Your task to perform on an android device: open chrome and create a bookmark for the current page Image 0: 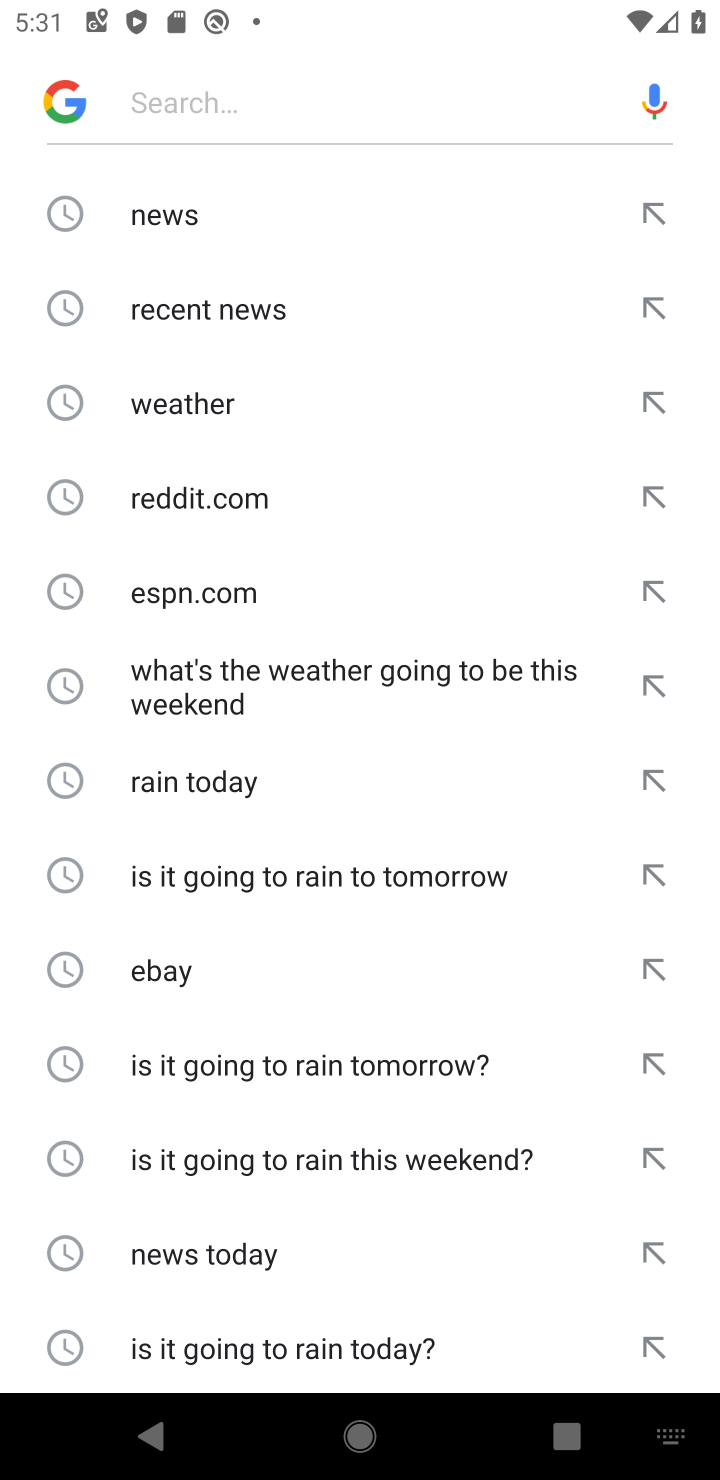
Step 0: press back button
Your task to perform on an android device: open chrome and create a bookmark for the current page Image 1: 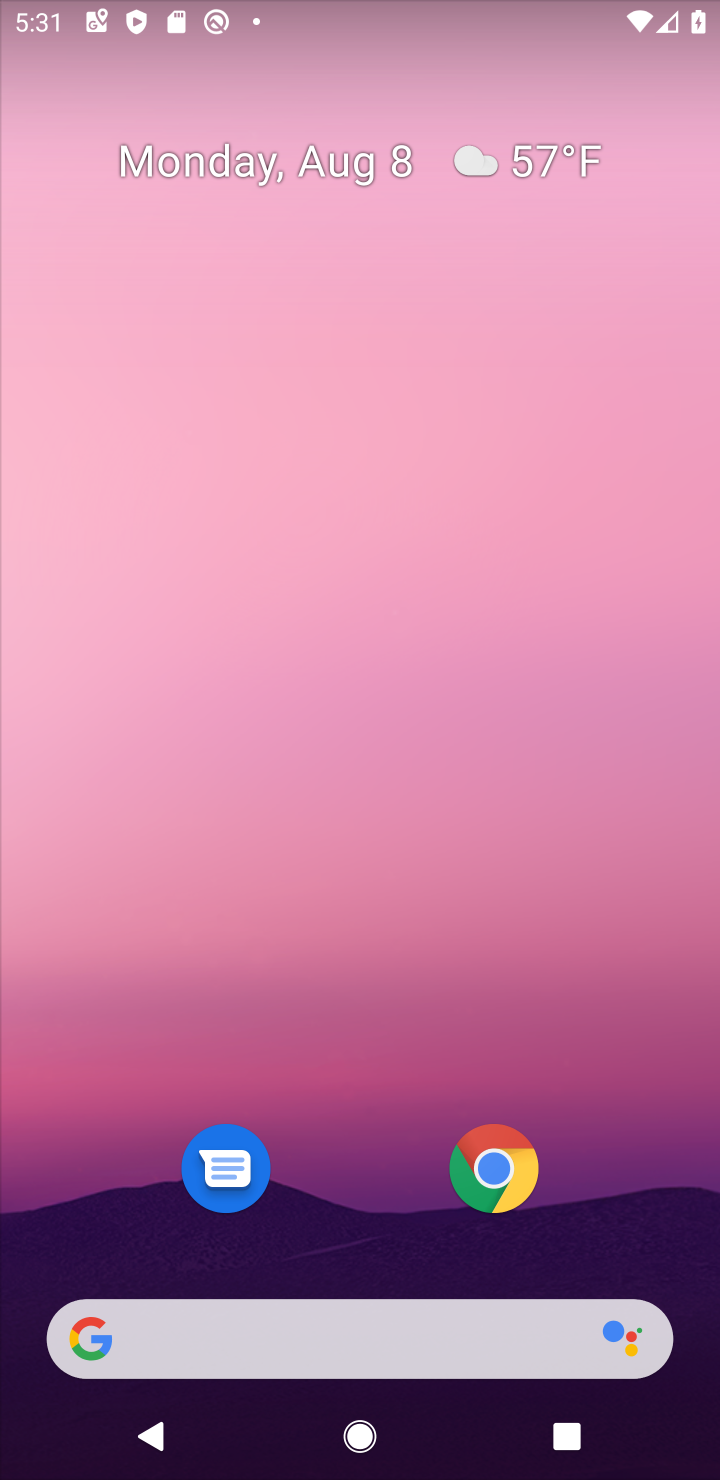
Step 1: click (519, 1184)
Your task to perform on an android device: open chrome and create a bookmark for the current page Image 2: 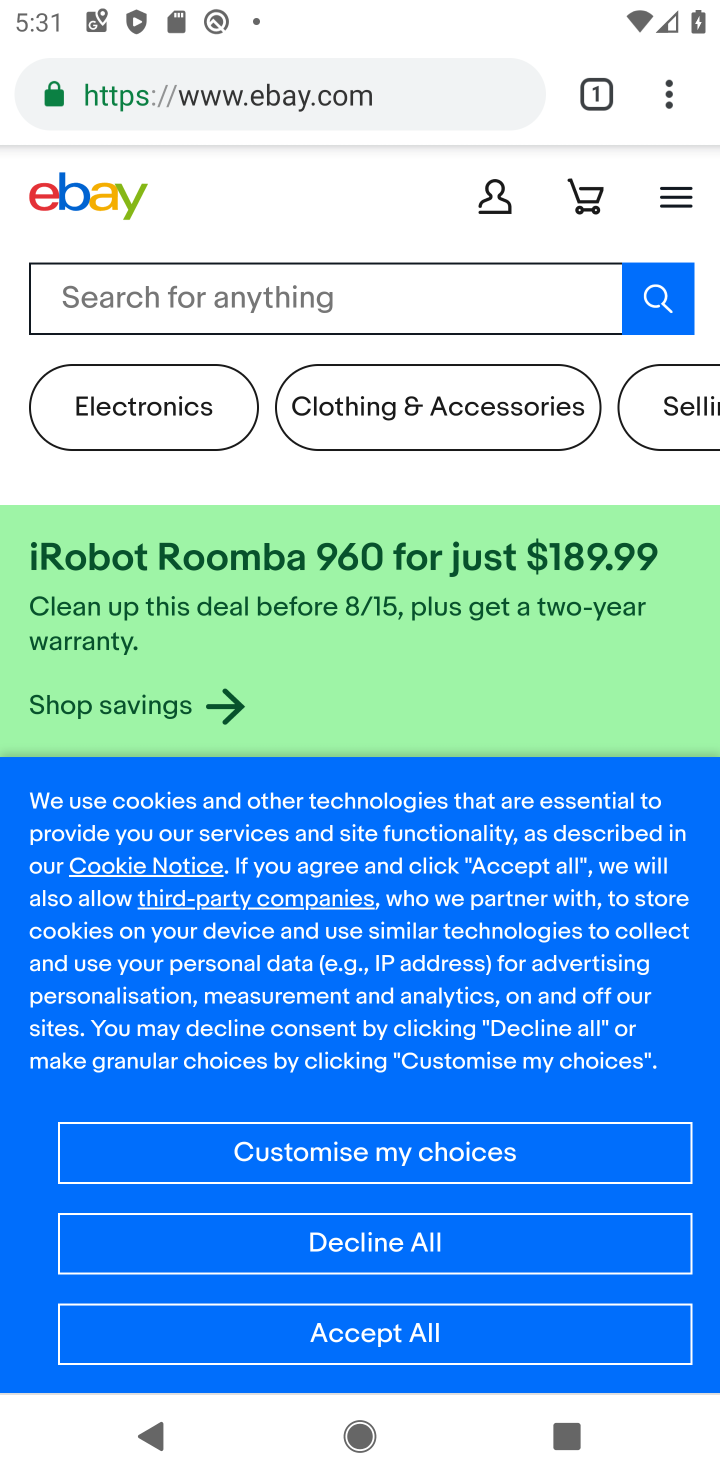
Step 2: task complete